Your task to perform on an android device: turn pop-ups on in chrome Image 0: 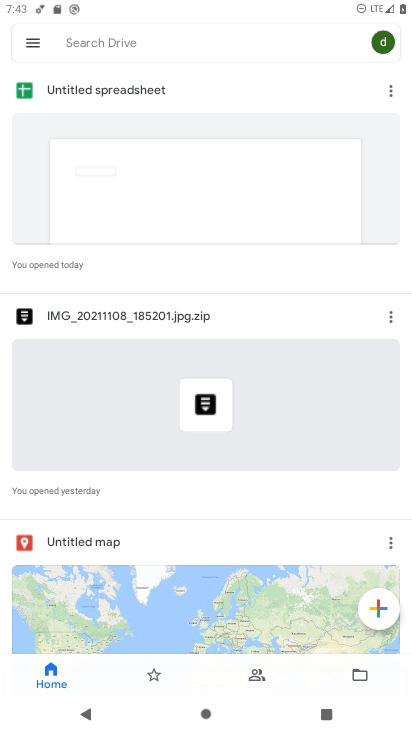
Step 0: press home button
Your task to perform on an android device: turn pop-ups on in chrome Image 1: 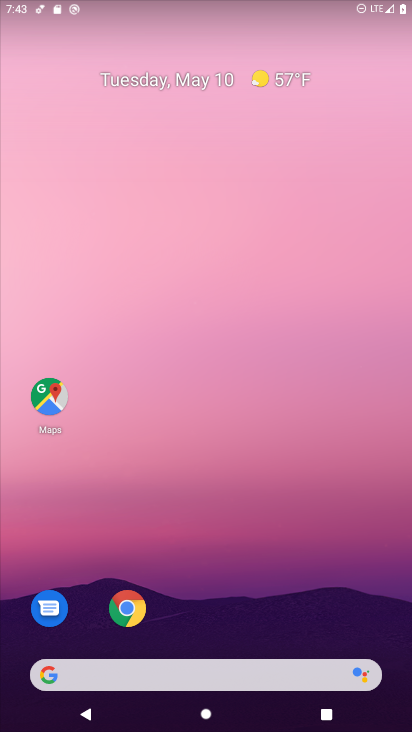
Step 1: drag from (341, 601) to (234, 65)
Your task to perform on an android device: turn pop-ups on in chrome Image 2: 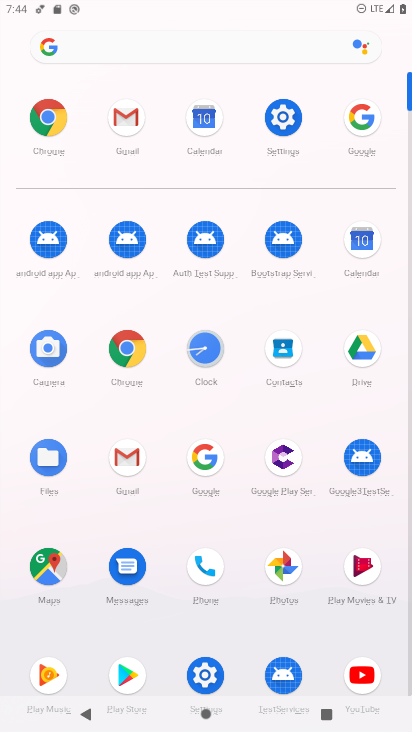
Step 2: click (120, 353)
Your task to perform on an android device: turn pop-ups on in chrome Image 3: 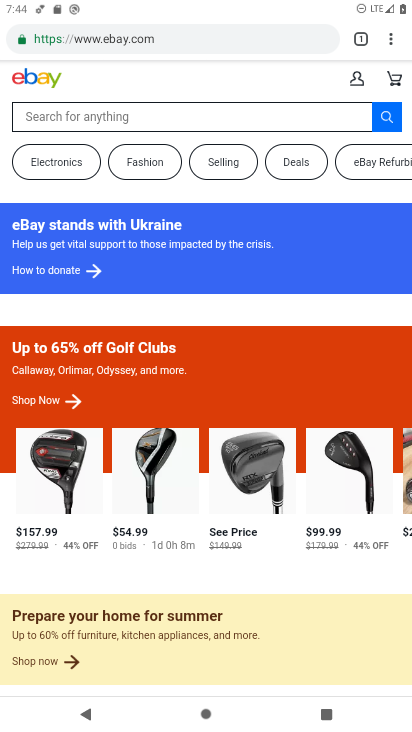
Step 3: press back button
Your task to perform on an android device: turn pop-ups on in chrome Image 4: 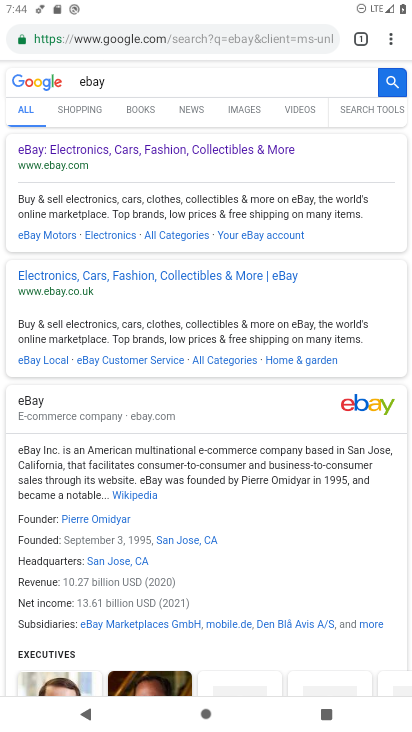
Step 4: press back button
Your task to perform on an android device: turn pop-ups on in chrome Image 5: 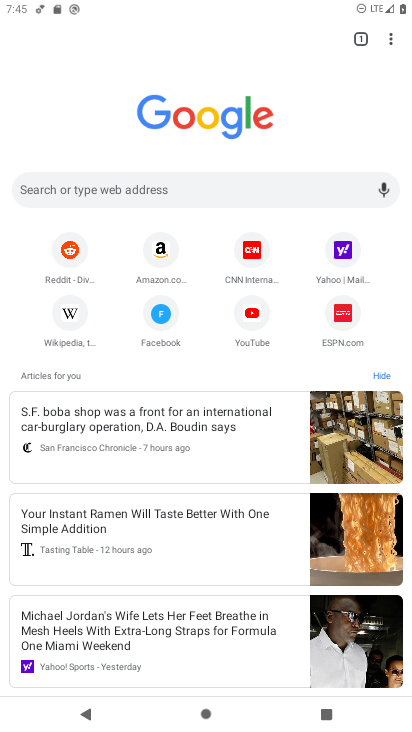
Step 5: click (396, 36)
Your task to perform on an android device: turn pop-ups on in chrome Image 6: 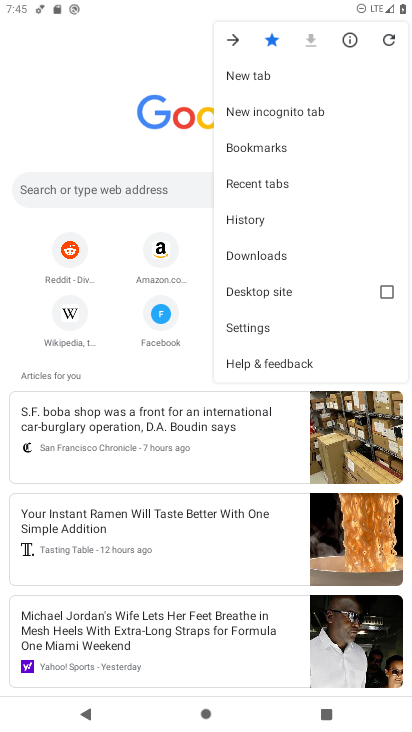
Step 6: click (296, 325)
Your task to perform on an android device: turn pop-ups on in chrome Image 7: 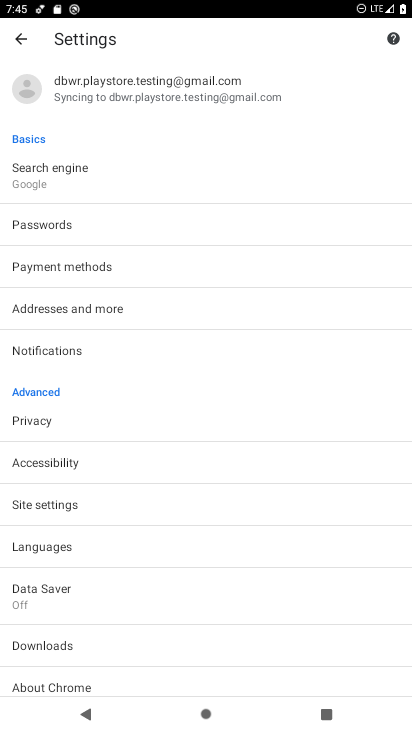
Step 7: click (151, 506)
Your task to perform on an android device: turn pop-ups on in chrome Image 8: 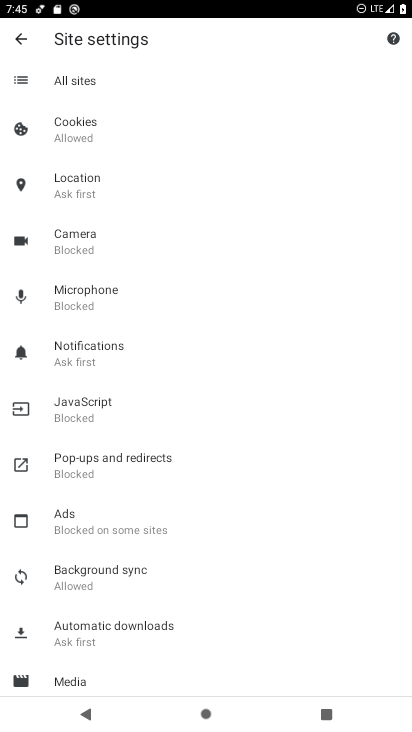
Step 8: click (152, 471)
Your task to perform on an android device: turn pop-ups on in chrome Image 9: 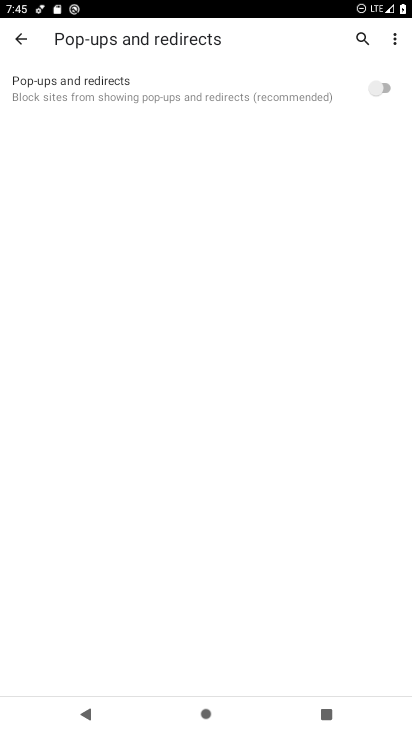
Step 9: click (361, 106)
Your task to perform on an android device: turn pop-ups on in chrome Image 10: 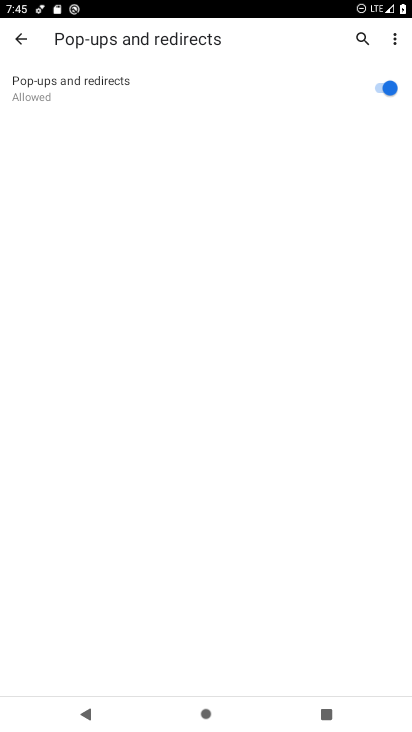
Step 10: task complete